Your task to perform on an android device: turn off picture-in-picture Image 0: 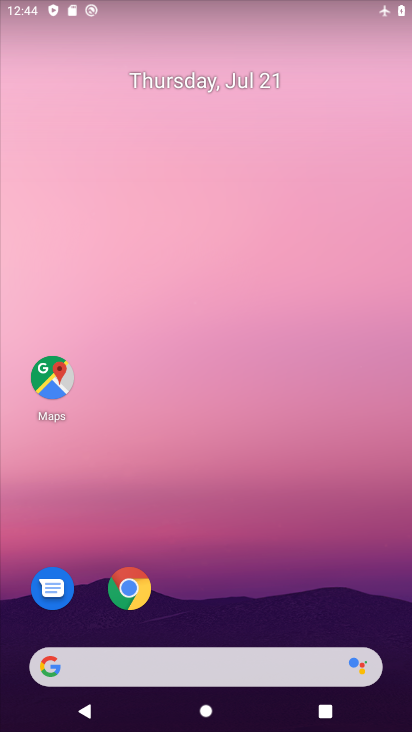
Step 0: click (142, 581)
Your task to perform on an android device: turn off picture-in-picture Image 1: 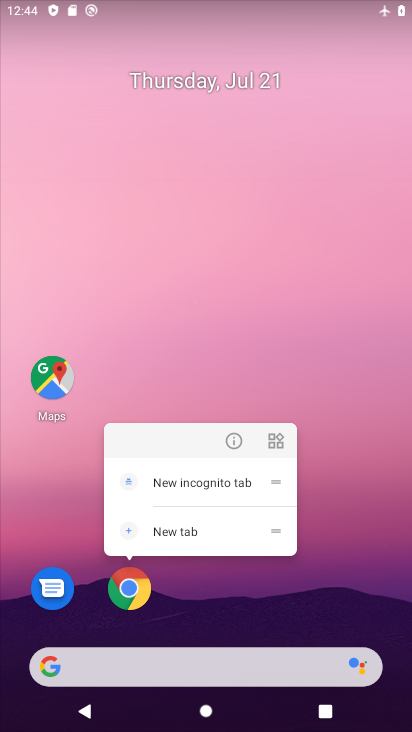
Step 1: click (233, 439)
Your task to perform on an android device: turn off picture-in-picture Image 2: 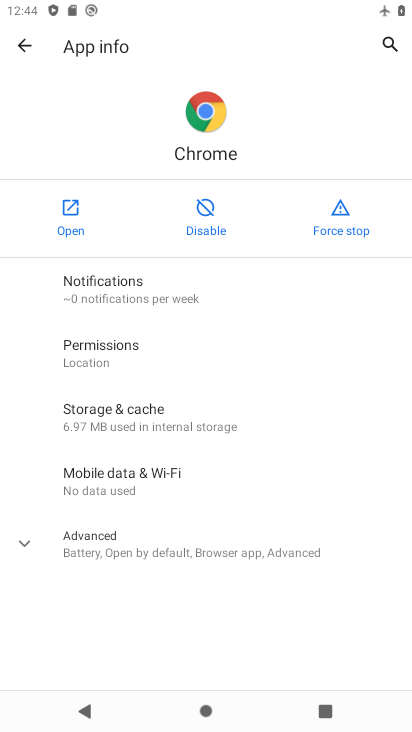
Step 2: click (174, 549)
Your task to perform on an android device: turn off picture-in-picture Image 3: 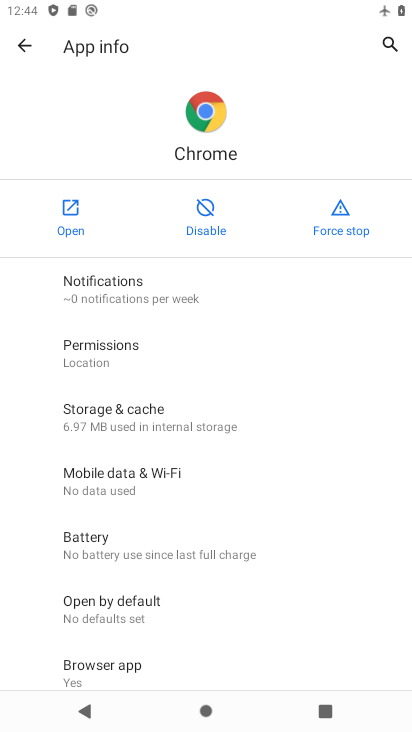
Step 3: drag from (238, 584) to (172, 251)
Your task to perform on an android device: turn off picture-in-picture Image 4: 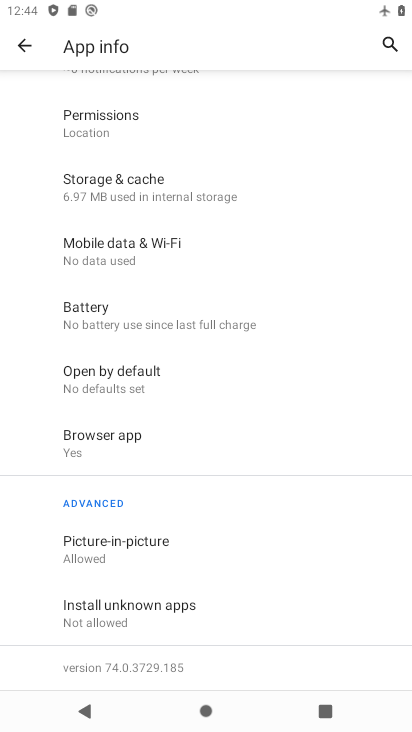
Step 4: click (177, 540)
Your task to perform on an android device: turn off picture-in-picture Image 5: 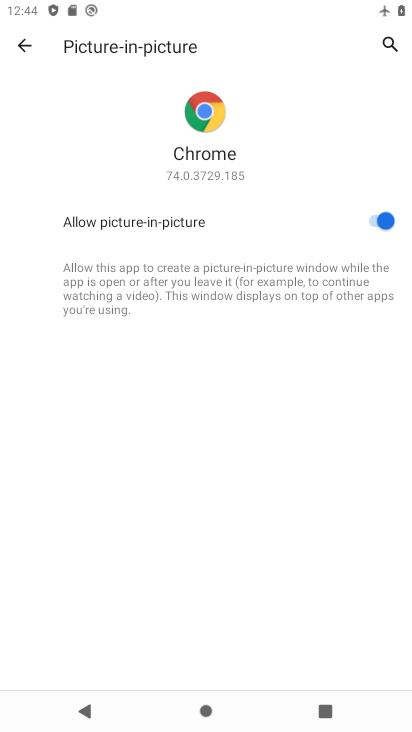
Step 5: click (375, 229)
Your task to perform on an android device: turn off picture-in-picture Image 6: 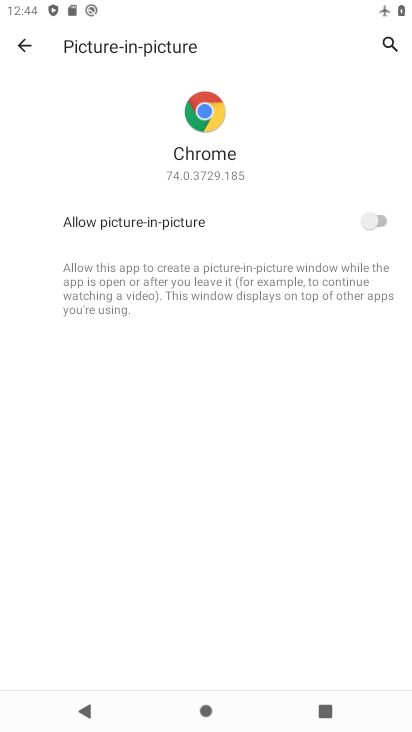
Step 6: task complete